Your task to perform on an android device: open a new tab in the chrome app Image 0: 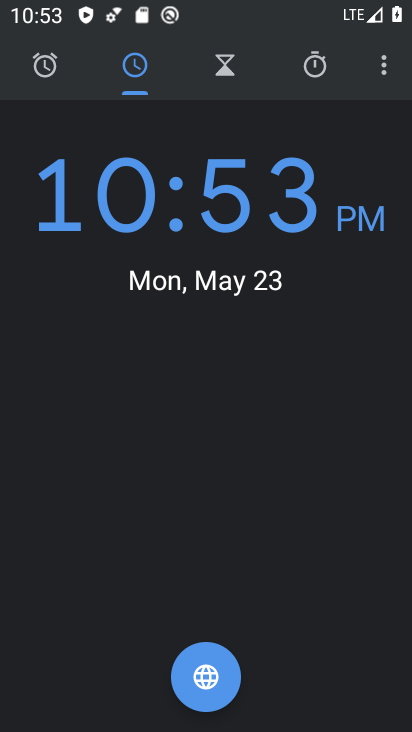
Step 0: press home button
Your task to perform on an android device: open a new tab in the chrome app Image 1: 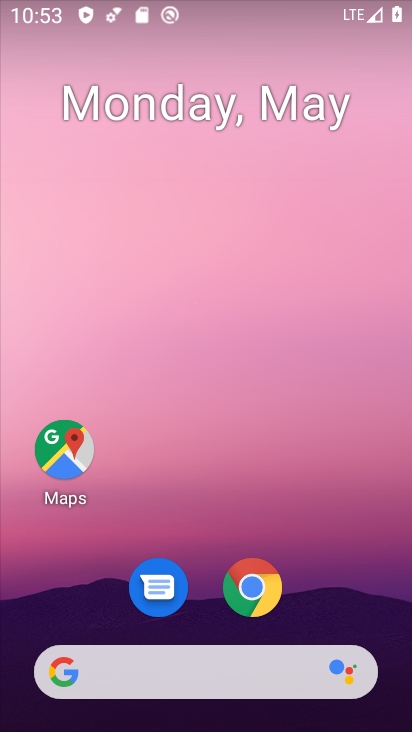
Step 1: drag from (375, 619) to (311, 109)
Your task to perform on an android device: open a new tab in the chrome app Image 2: 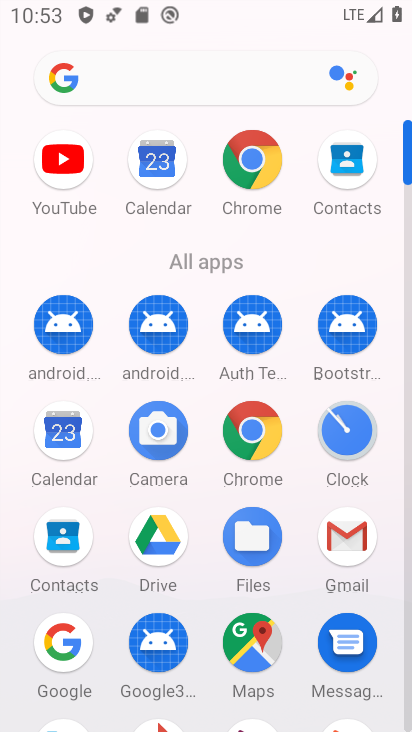
Step 2: click (272, 158)
Your task to perform on an android device: open a new tab in the chrome app Image 3: 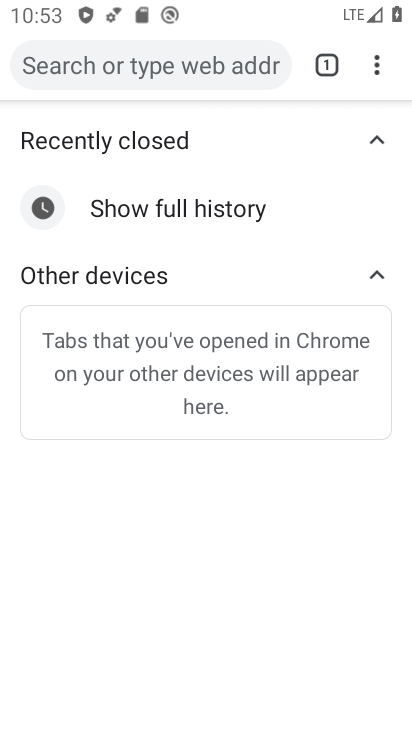
Step 3: click (369, 63)
Your task to perform on an android device: open a new tab in the chrome app Image 4: 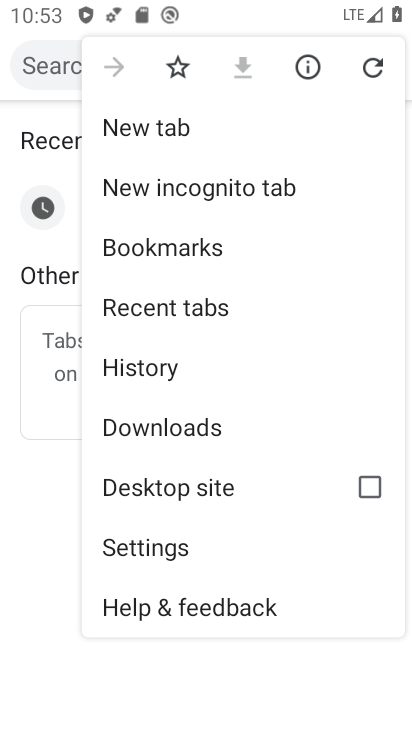
Step 4: click (177, 132)
Your task to perform on an android device: open a new tab in the chrome app Image 5: 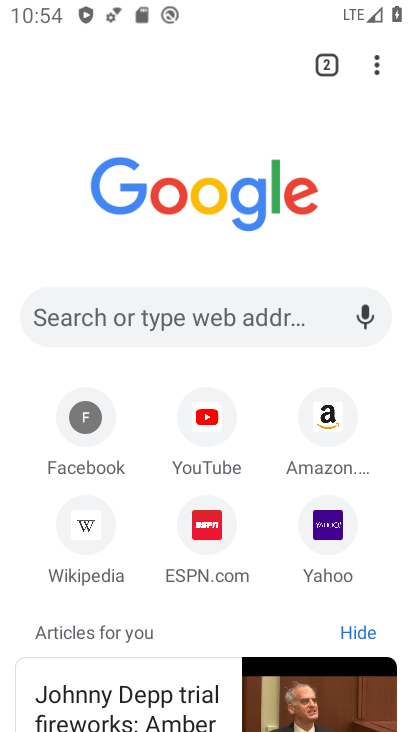
Step 5: task complete